Your task to perform on an android device: Search for "razer huntsman" on ebay, select the first entry, and add it to the cart. Image 0: 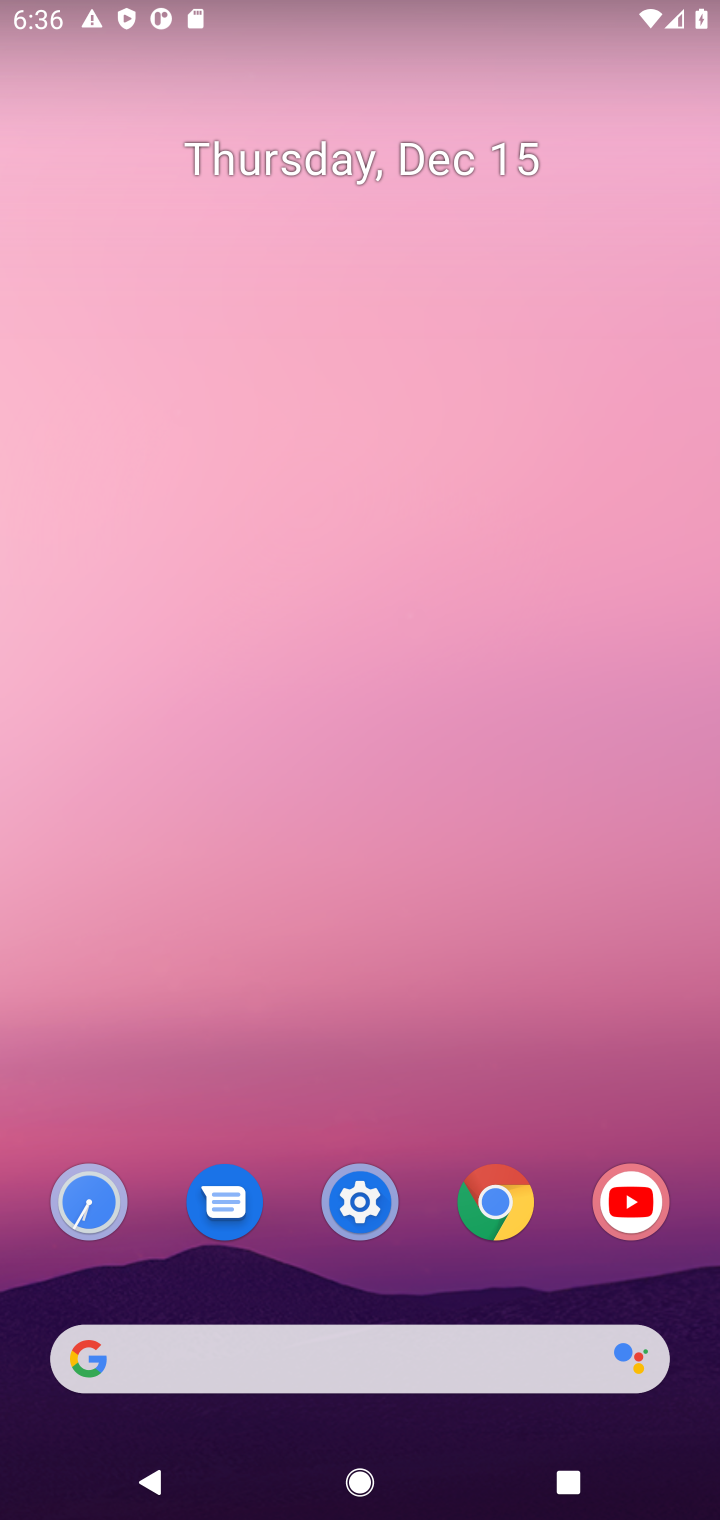
Step 0: click (479, 1212)
Your task to perform on an android device: Search for "razer huntsman" on ebay, select the first entry, and add it to the cart. Image 1: 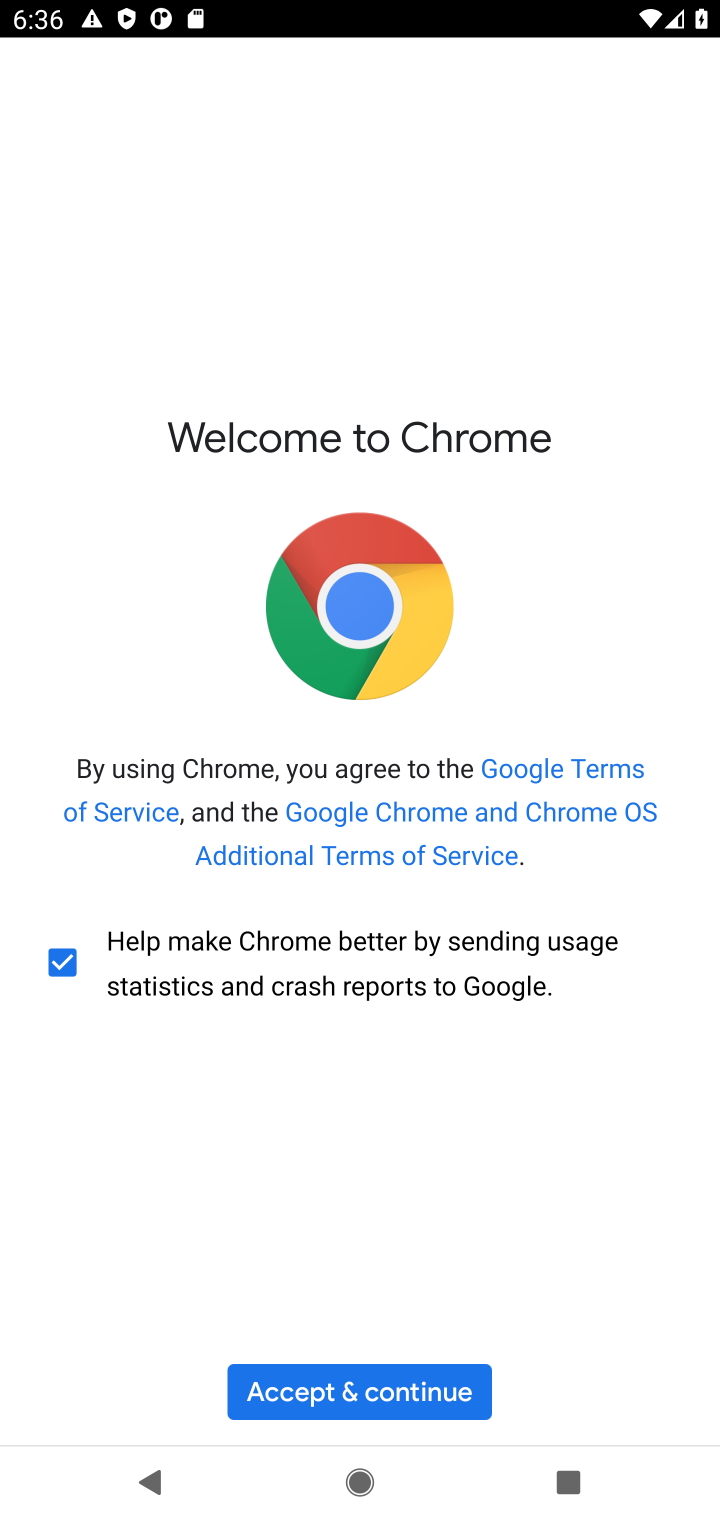
Step 1: click (321, 1396)
Your task to perform on an android device: Search for "razer huntsman" on ebay, select the first entry, and add it to the cart. Image 2: 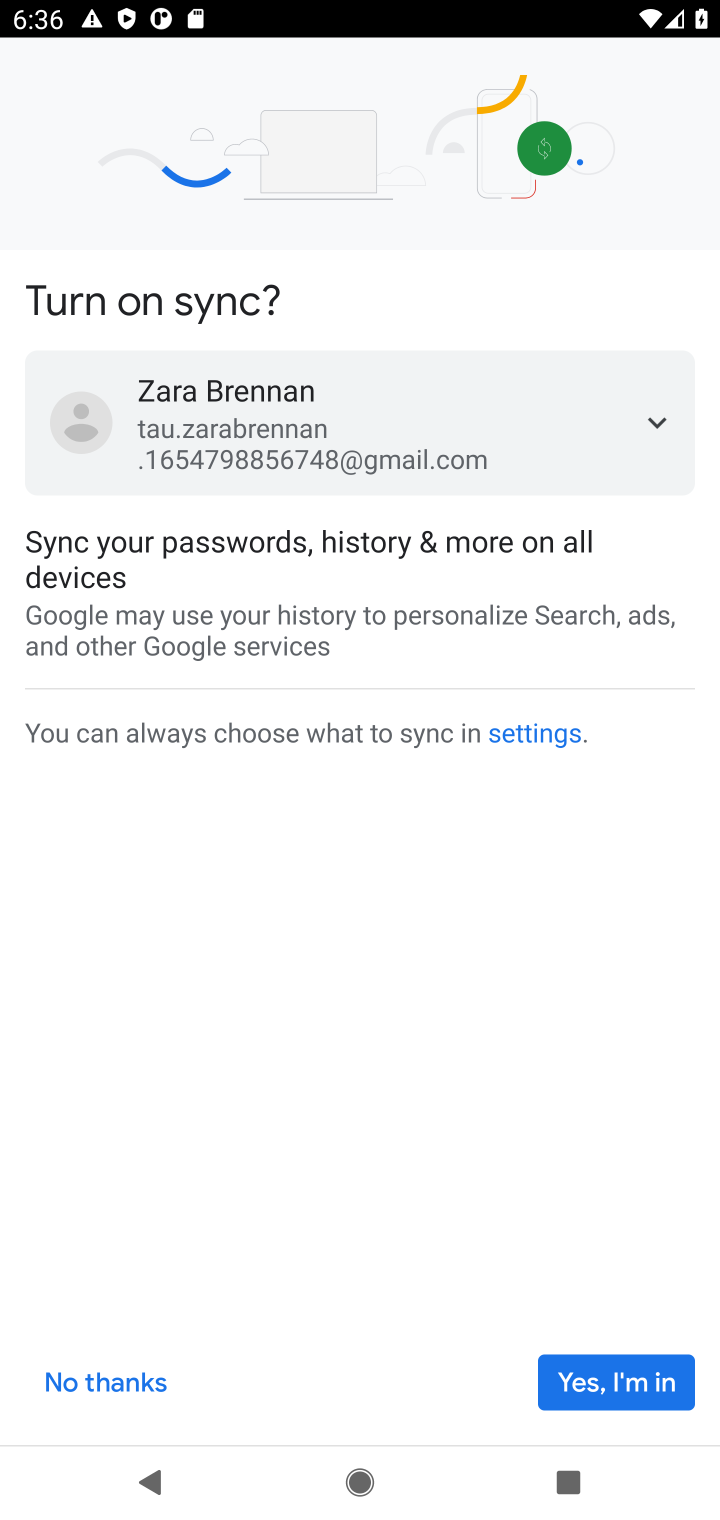
Step 2: click (121, 1394)
Your task to perform on an android device: Search for "razer huntsman" on ebay, select the first entry, and add it to the cart. Image 3: 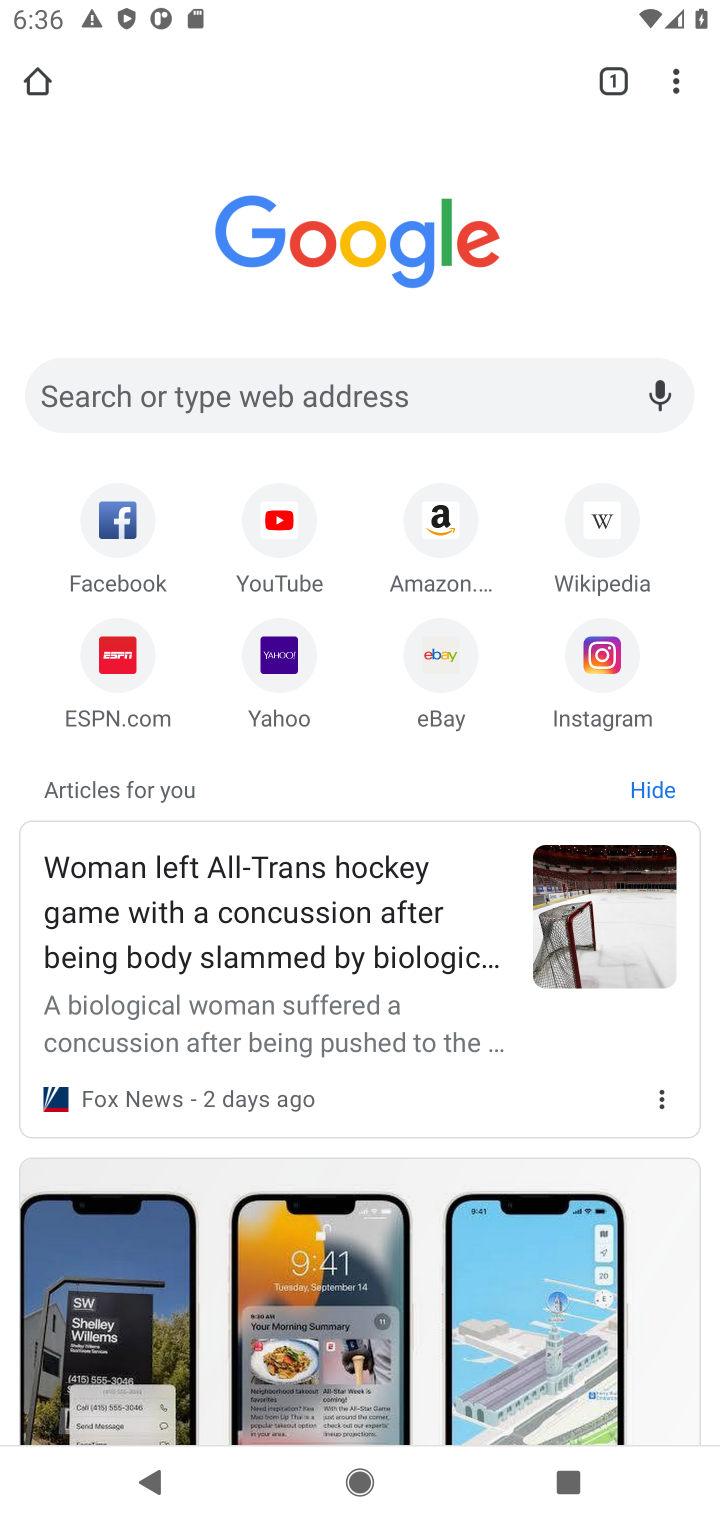
Step 3: click (441, 672)
Your task to perform on an android device: Search for "razer huntsman" on ebay, select the first entry, and add it to the cart. Image 4: 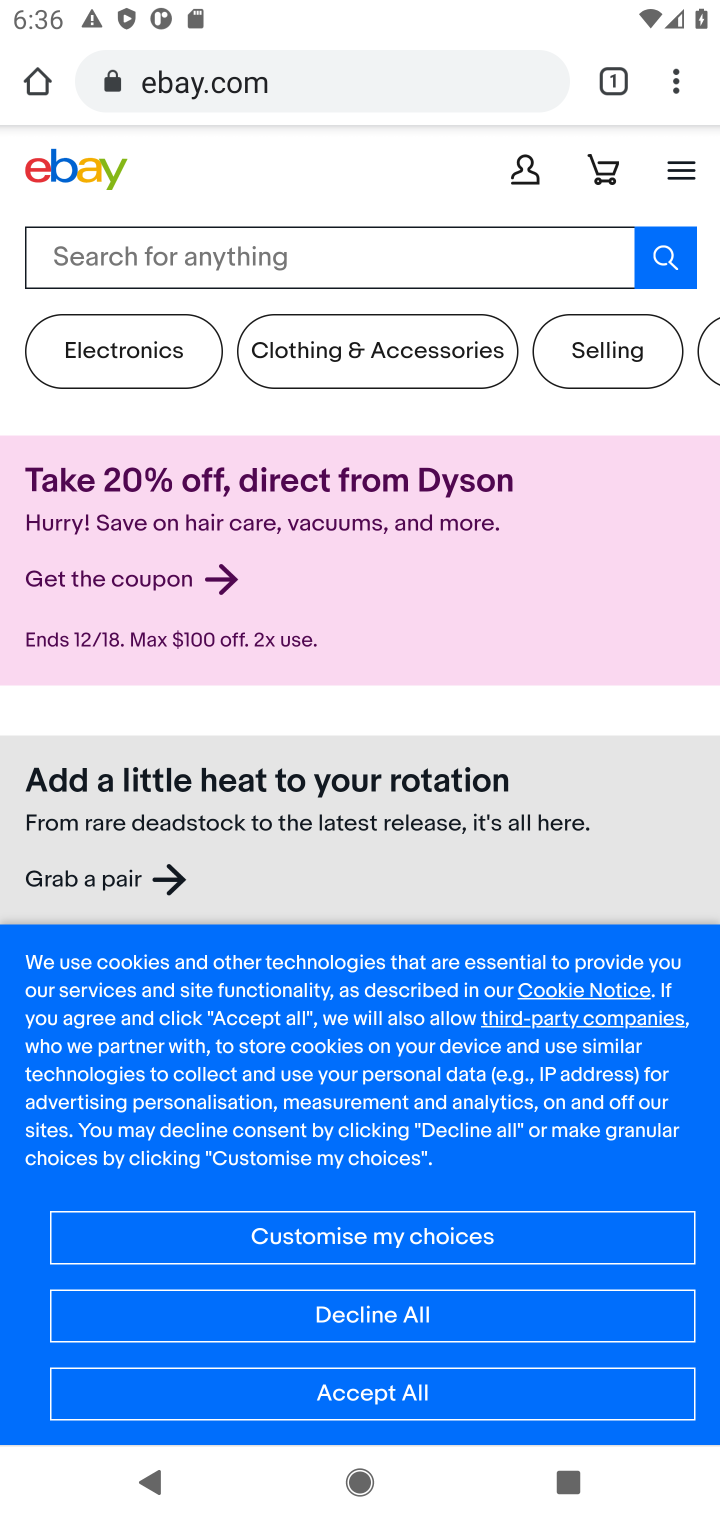
Step 4: click (147, 268)
Your task to perform on an android device: Search for "razer huntsman" on ebay, select the first entry, and add it to the cart. Image 5: 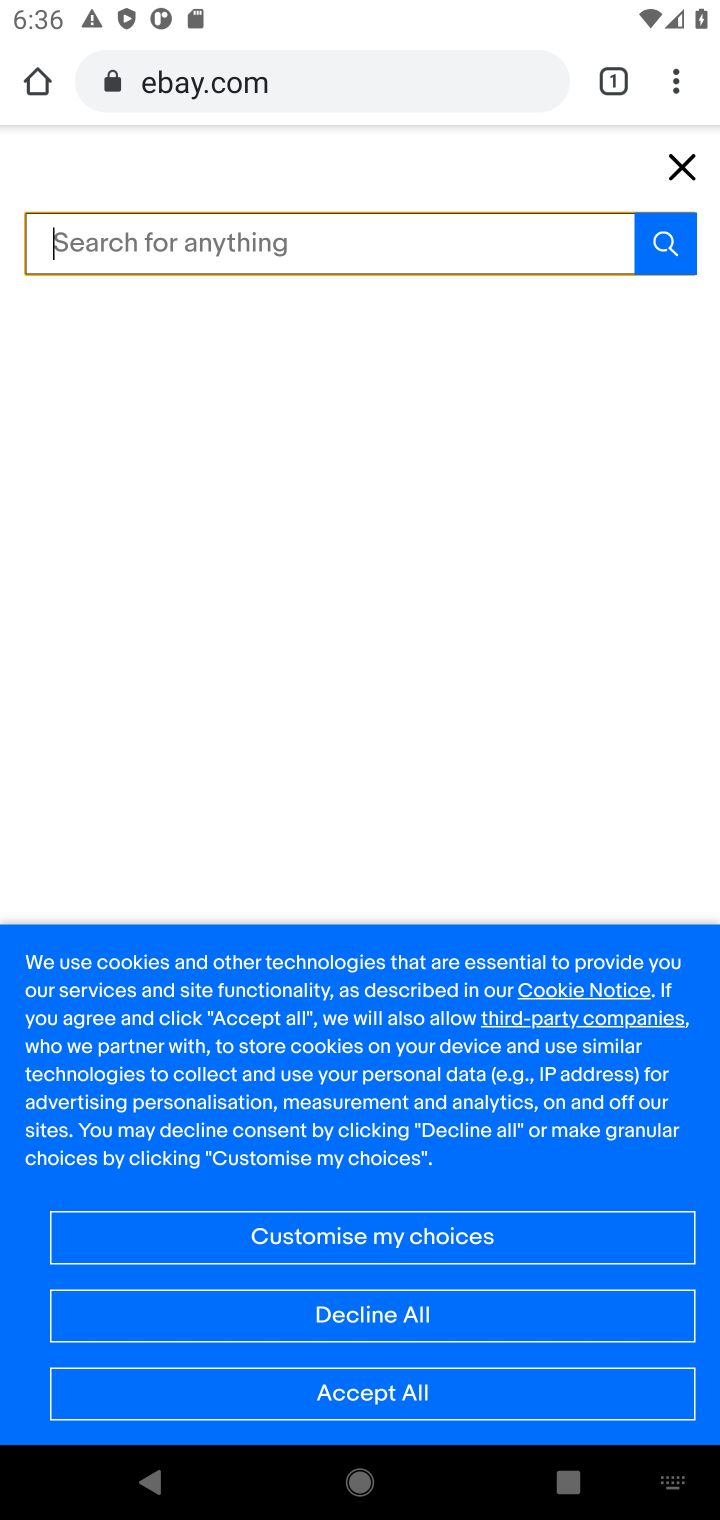
Step 5: type "razer huntsman"
Your task to perform on an android device: Search for "razer huntsman" on ebay, select the first entry, and add it to the cart. Image 6: 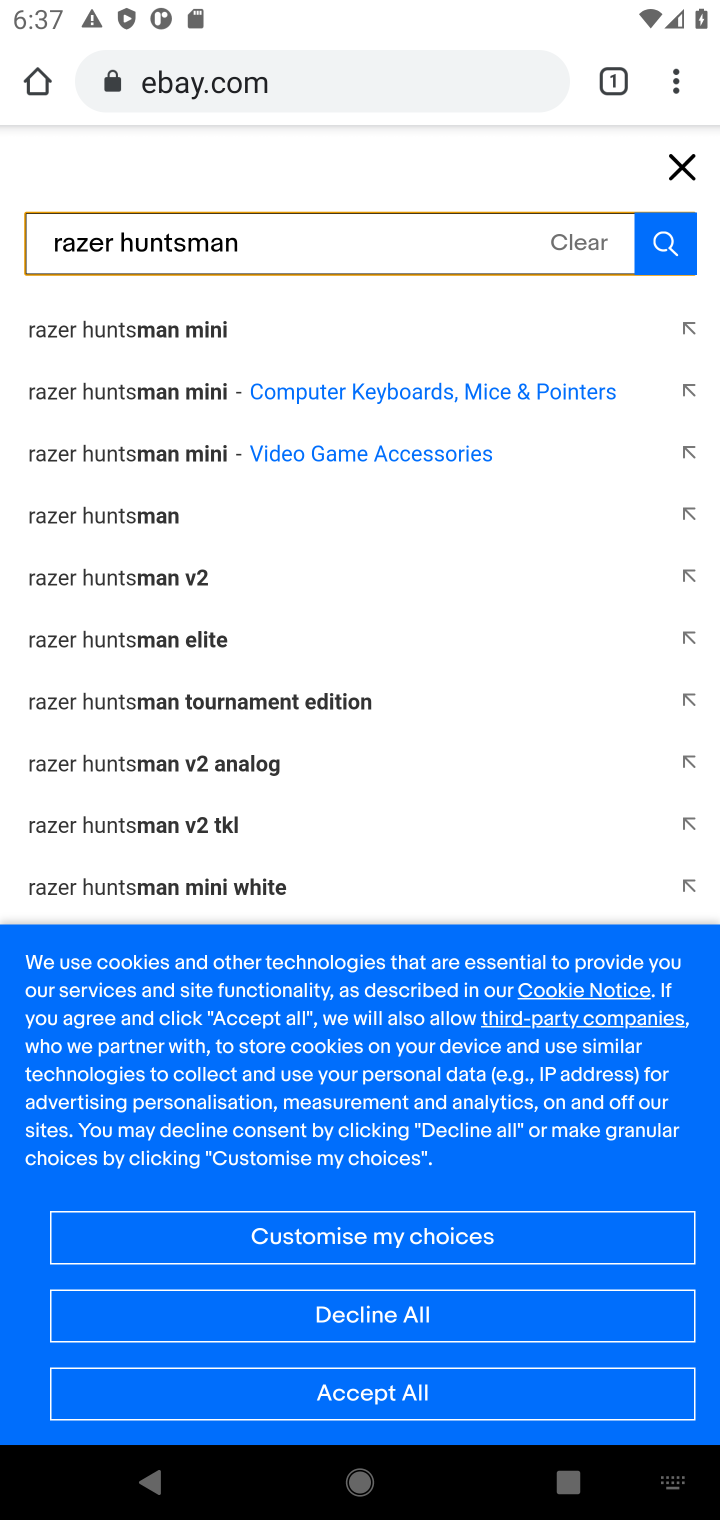
Step 6: click (122, 530)
Your task to perform on an android device: Search for "razer huntsman" on ebay, select the first entry, and add it to the cart. Image 7: 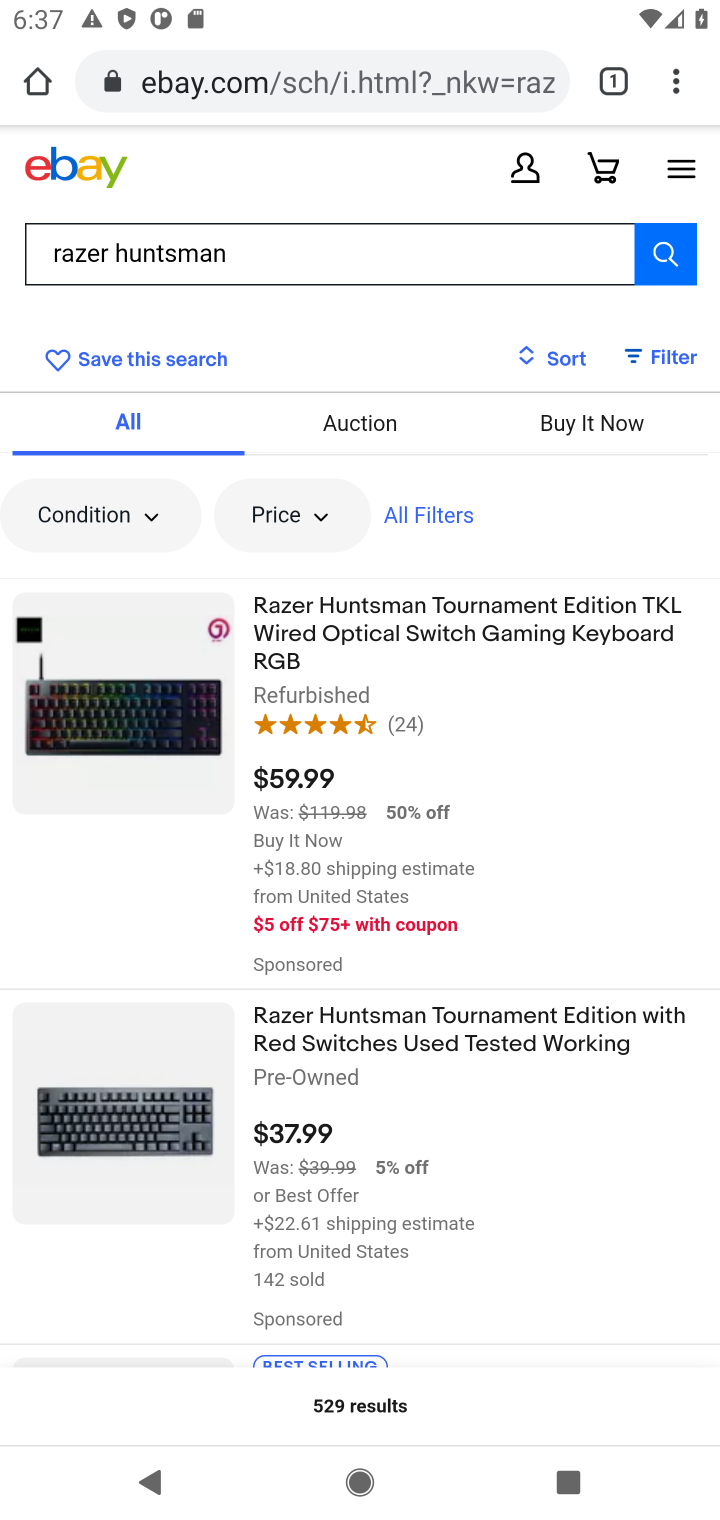
Step 7: click (354, 631)
Your task to perform on an android device: Search for "razer huntsman" on ebay, select the first entry, and add it to the cart. Image 8: 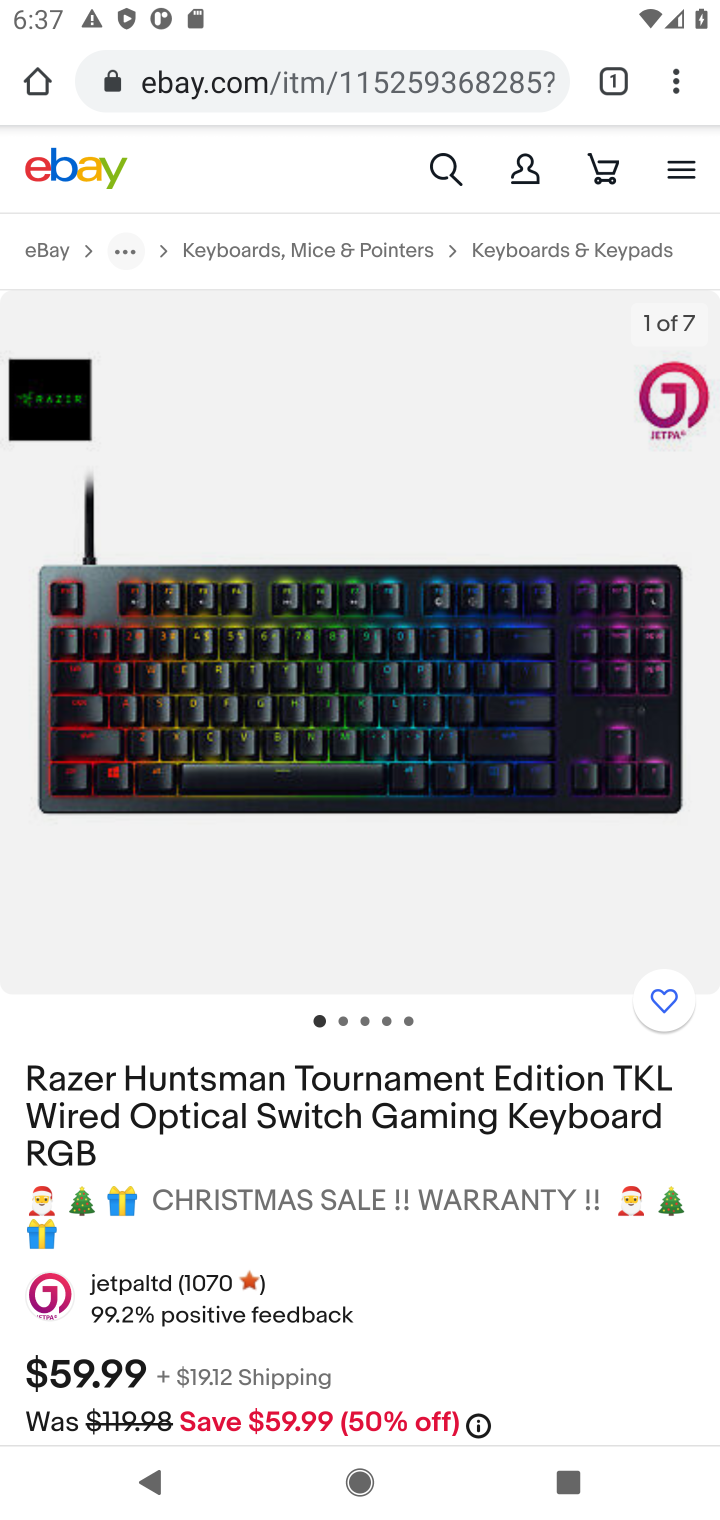
Step 8: drag from (271, 1053) to (265, 586)
Your task to perform on an android device: Search for "razer huntsman" on ebay, select the first entry, and add it to the cart. Image 9: 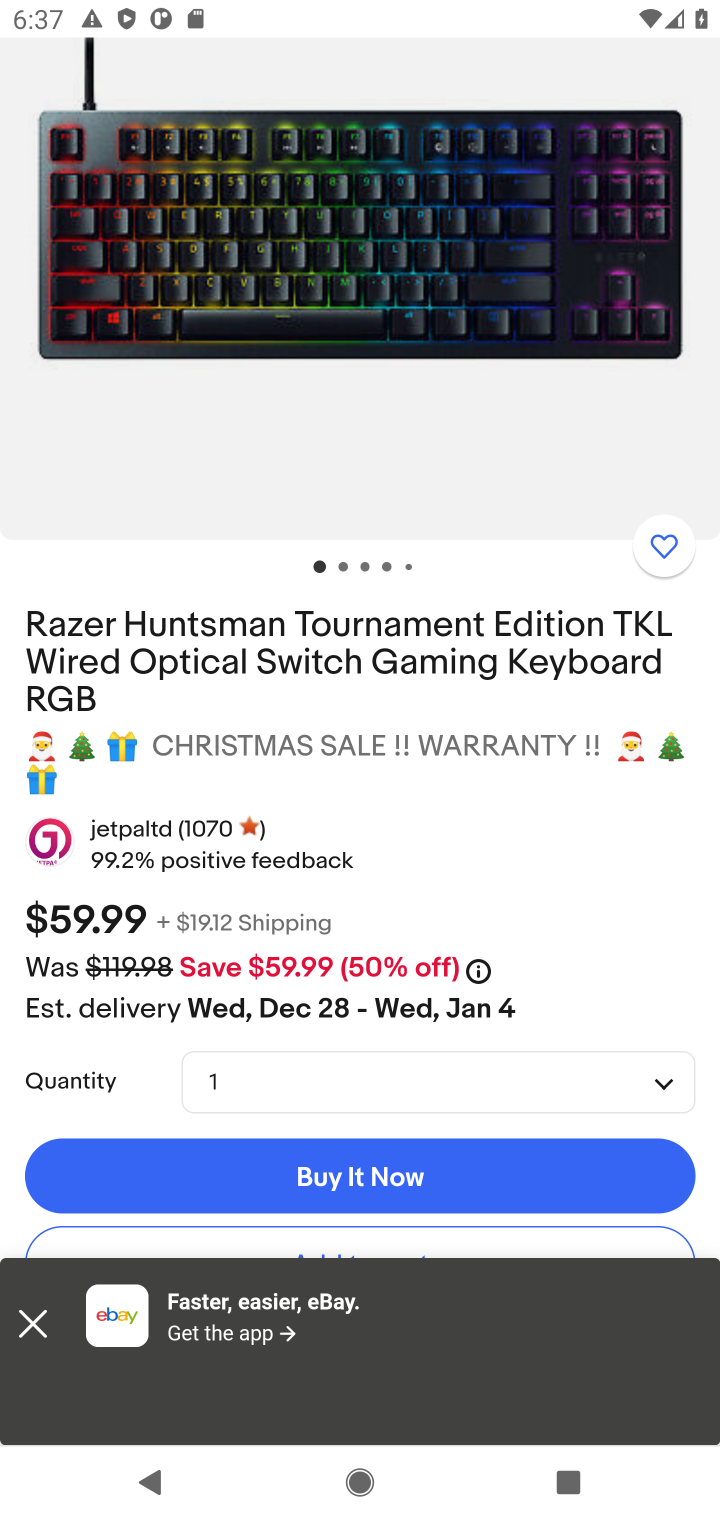
Step 9: drag from (457, 1029) to (442, 659)
Your task to perform on an android device: Search for "razer huntsman" on ebay, select the first entry, and add it to the cart. Image 10: 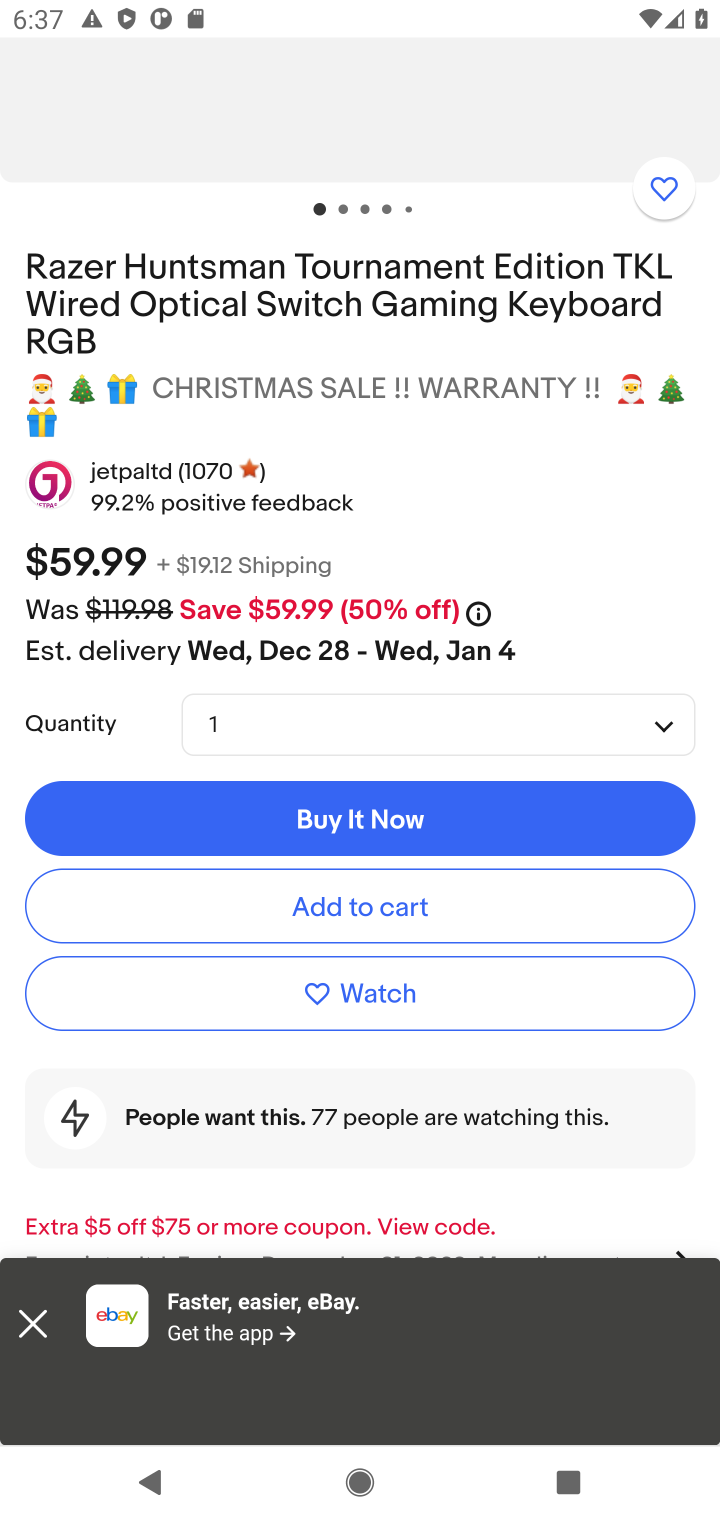
Step 10: click (353, 908)
Your task to perform on an android device: Search for "razer huntsman" on ebay, select the first entry, and add it to the cart. Image 11: 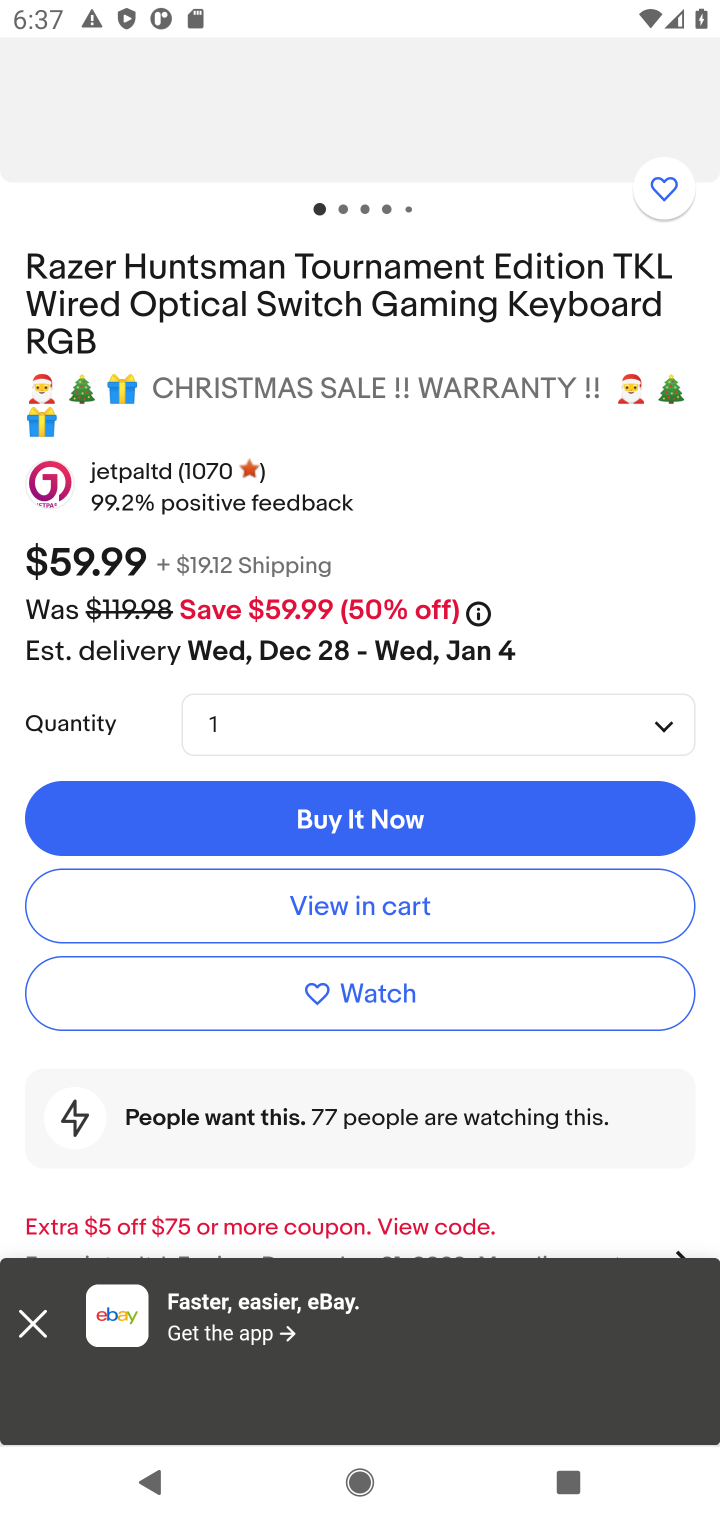
Step 11: task complete